Your task to perform on an android device: turn off wifi Image 0: 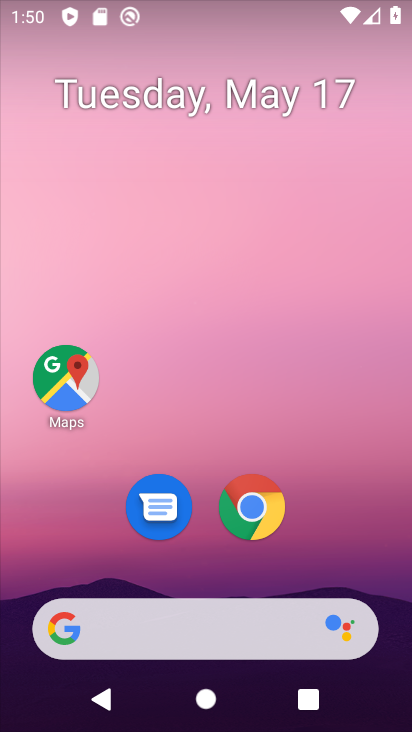
Step 0: drag from (221, 644) to (214, 106)
Your task to perform on an android device: turn off wifi Image 1: 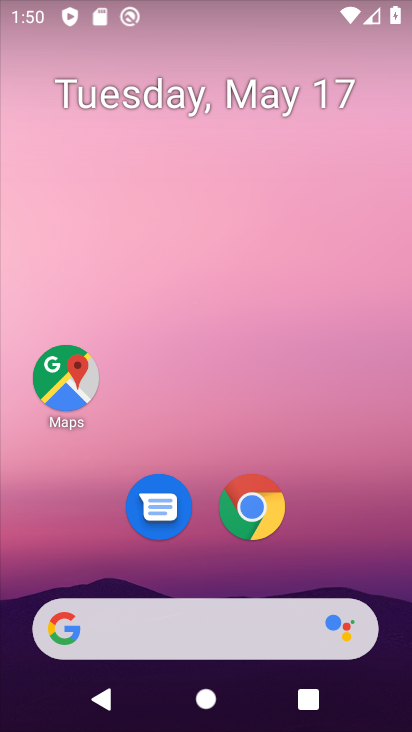
Step 1: drag from (237, 686) to (213, 106)
Your task to perform on an android device: turn off wifi Image 2: 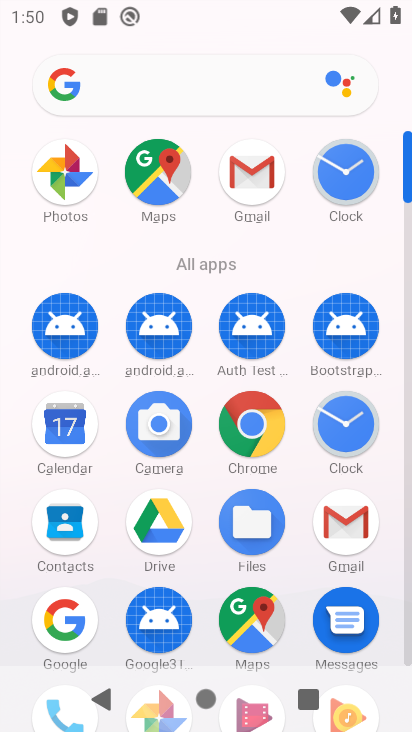
Step 2: drag from (227, 636) to (214, 131)
Your task to perform on an android device: turn off wifi Image 3: 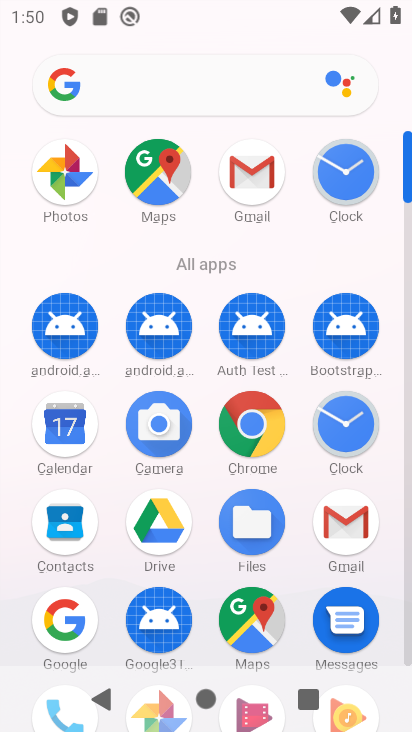
Step 3: drag from (209, 592) to (216, 103)
Your task to perform on an android device: turn off wifi Image 4: 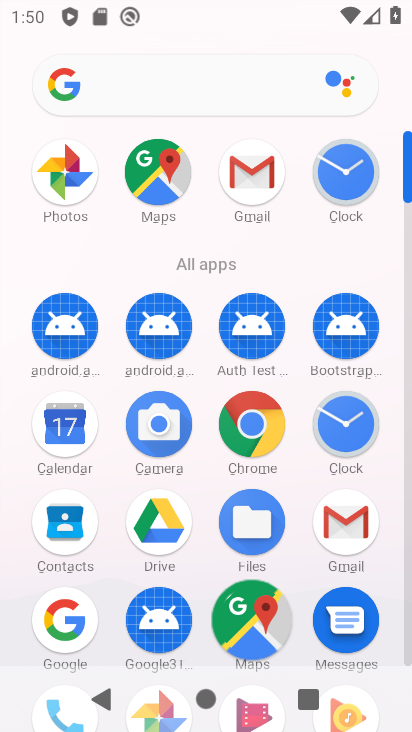
Step 4: drag from (229, 566) to (160, 43)
Your task to perform on an android device: turn off wifi Image 5: 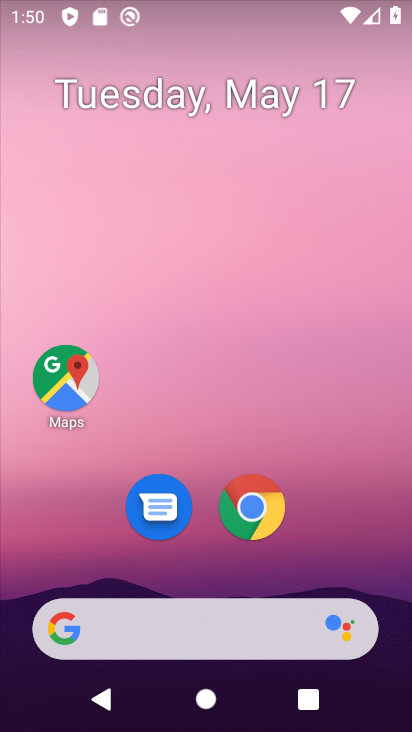
Step 5: drag from (372, 596) to (190, 88)
Your task to perform on an android device: turn off wifi Image 6: 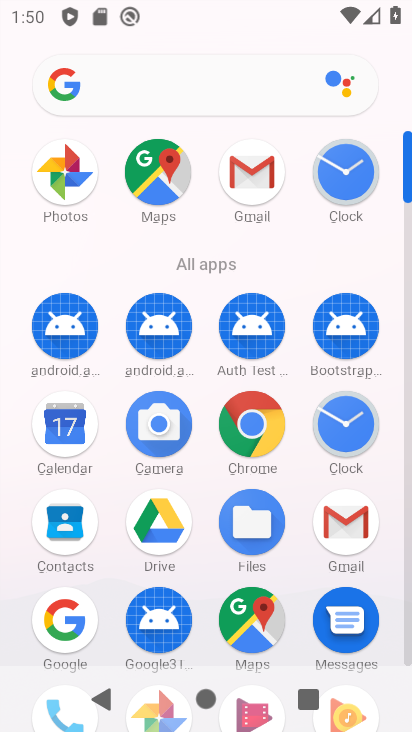
Step 6: drag from (195, 558) to (165, 100)
Your task to perform on an android device: turn off wifi Image 7: 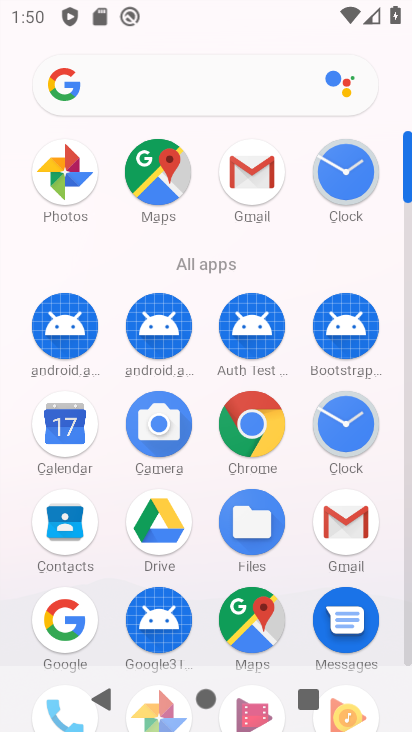
Step 7: drag from (282, 481) to (203, 62)
Your task to perform on an android device: turn off wifi Image 8: 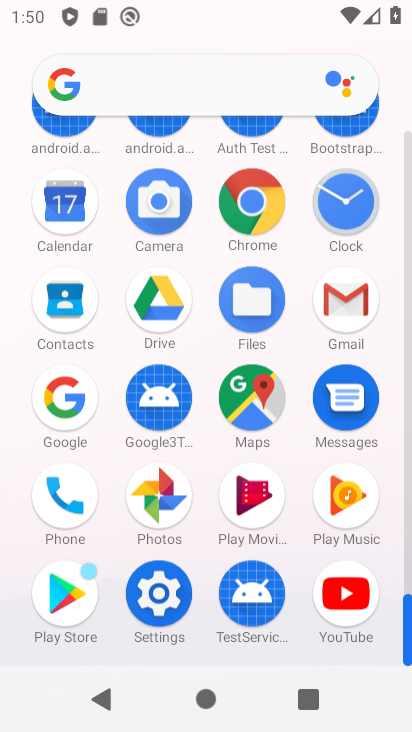
Step 8: drag from (244, 465) to (220, 96)
Your task to perform on an android device: turn off wifi Image 9: 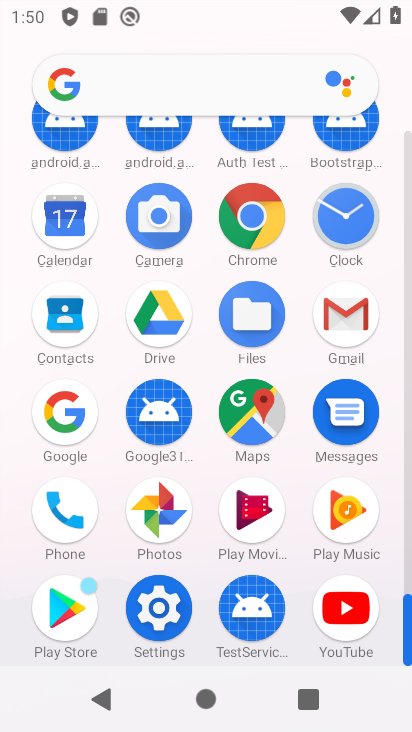
Step 9: click (155, 622)
Your task to perform on an android device: turn off wifi Image 10: 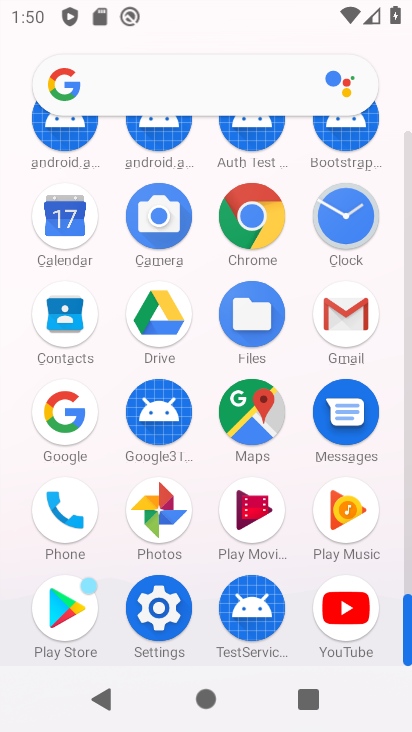
Step 10: click (155, 623)
Your task to perform on an android device: turn off wifi Image 11: 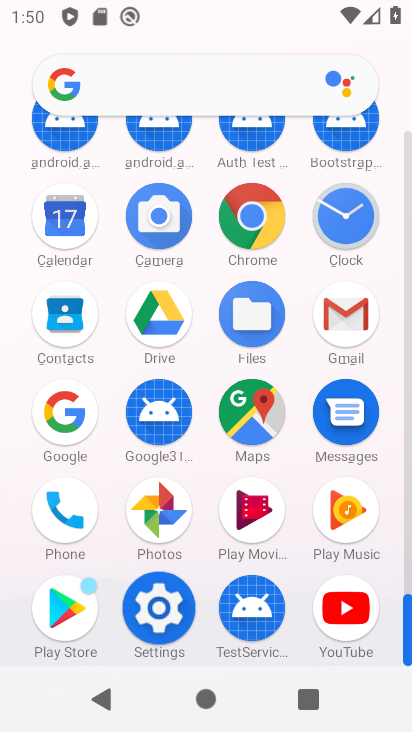
Step 11: click (155, 623)
Your task to perform on an android device: turn off wifi Image 12: 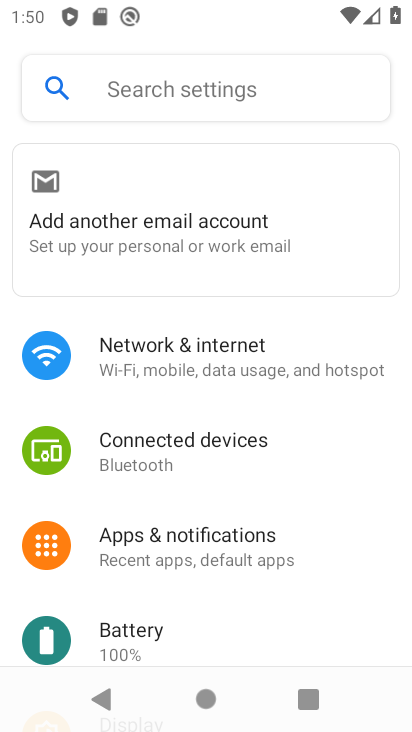
Step 12: click (198, 365)
Your task to perform on an android device: turn off wifi Image 13: 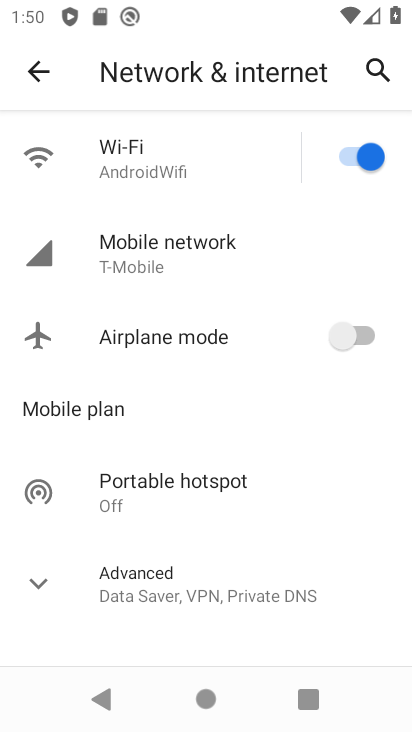
Step 13: click (360, 156)
Your task to perform on an android device: turn off wifi Image 14: 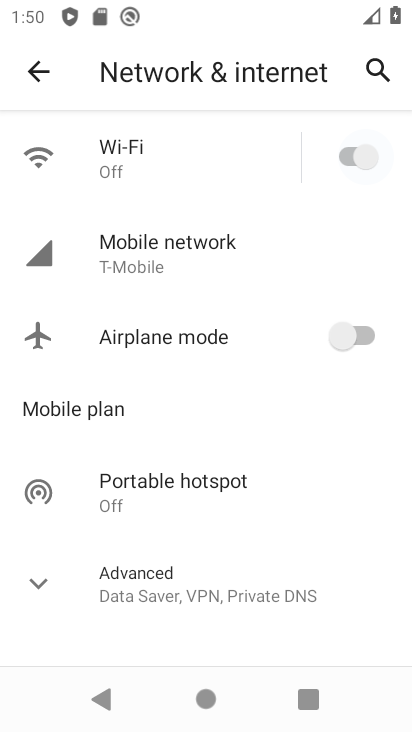
Step 14: click (372, 153)
Your task to perform on an android device: turn off wifi Image 15: 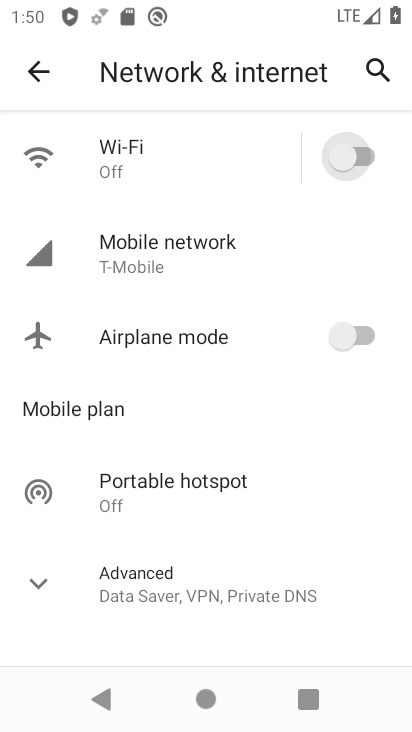
Step 15: click (372, 146)
Your task to perform on an android device: turn off wifi Image 16: 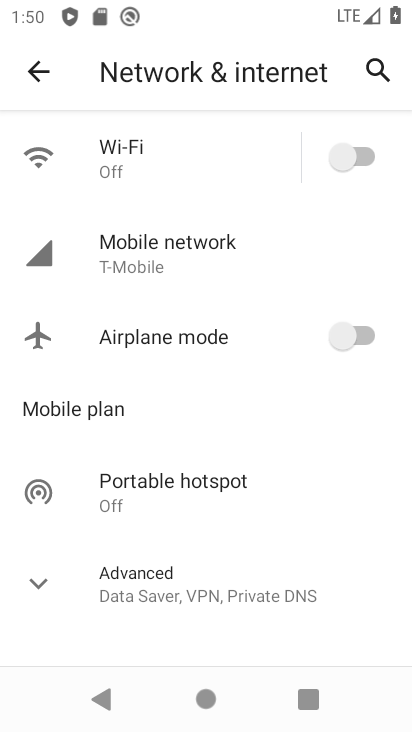
Step 16: task complete